Your task to perform on an android device: Open maps Image 0: 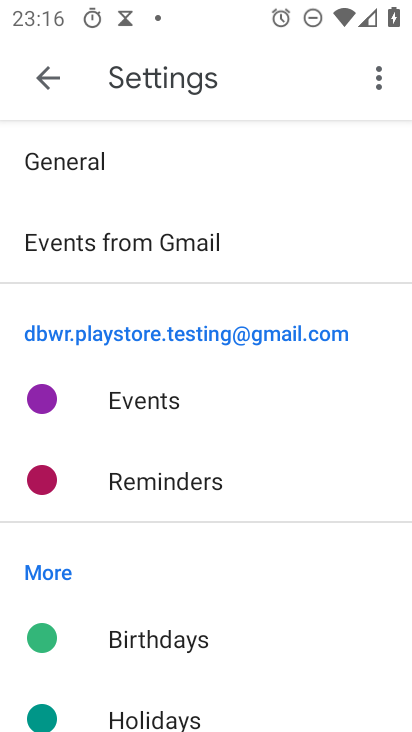
Step 0: press home button
Your task to perform on an android device: Open maps Image 1: 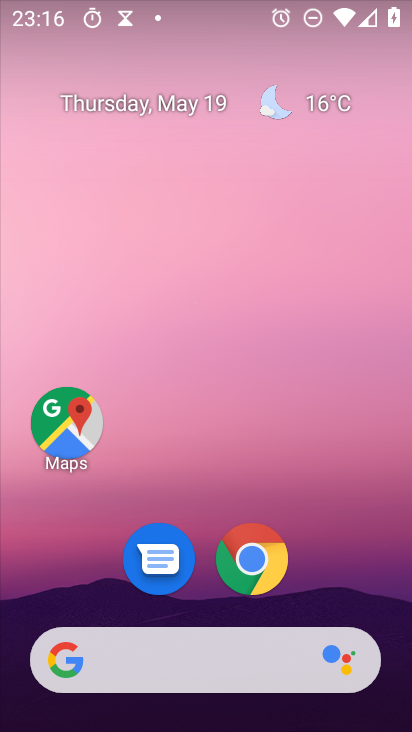
Step 1: drag from (211, 720) to (213, 107)
Your task to perform on an android device: Open maps Image 2: 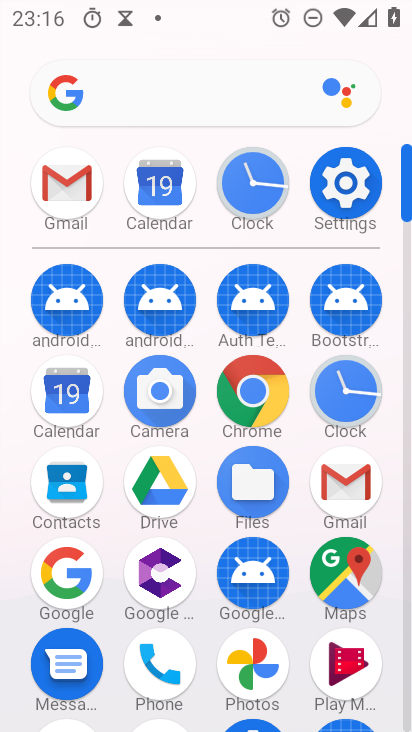
Step 2: click (344, 581)
Your task to perform on an android device: Open maps Image 3: 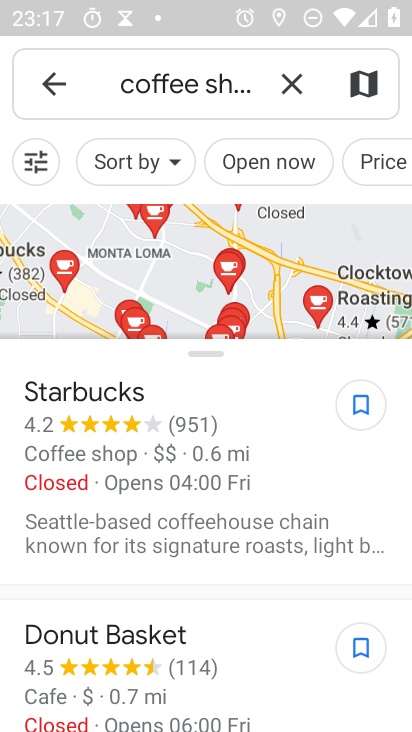
Step 3: task complete